Your task to perform on an android device: Go to Google Image 0: 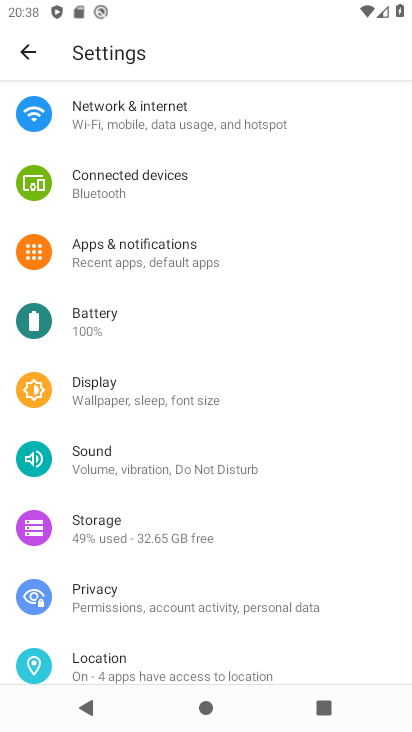
Step 0: press home button
Your task to perform on an android device: Go to Google Image 1: 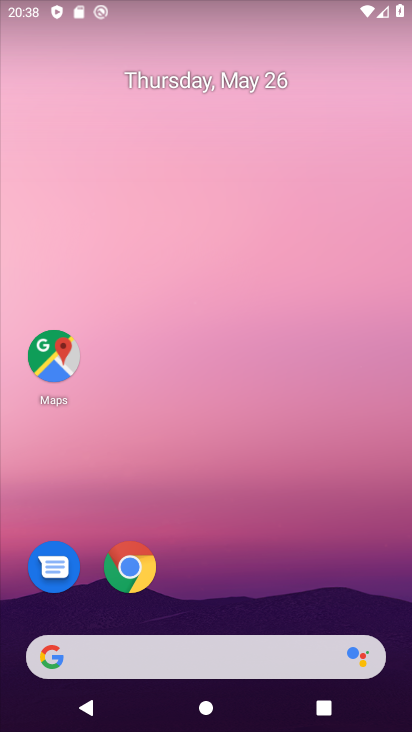
Step 1: drag from (226, 573) to (274, 2)
Your task to perform on an android device: Go to Google Image 2: 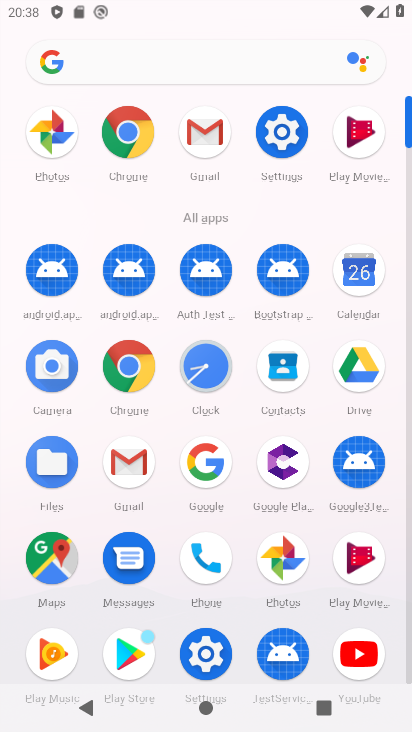
Step 2: click (205, 469)
Your task to perform on an android device: Go to Google Image 3: 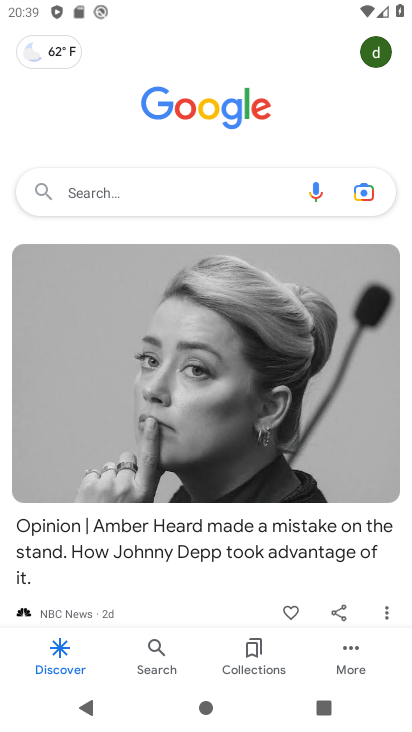
Step 3: task complete